Your task to perform on an android device: delete a single message in the gmail app Image 0: 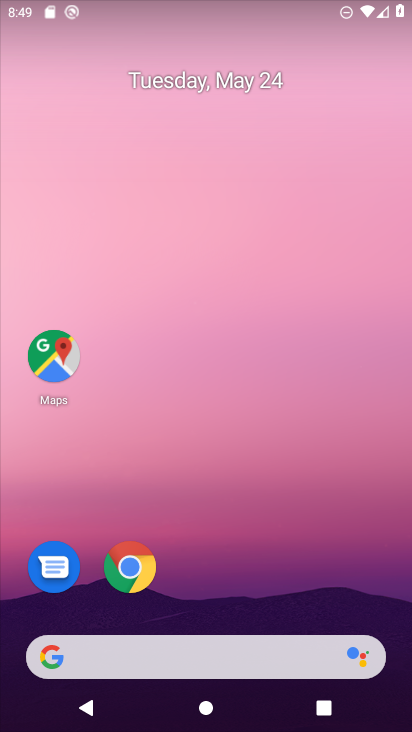
Step 0: press home button
Your task to perform on an android device: delete a single message in the gmail app Image 1: 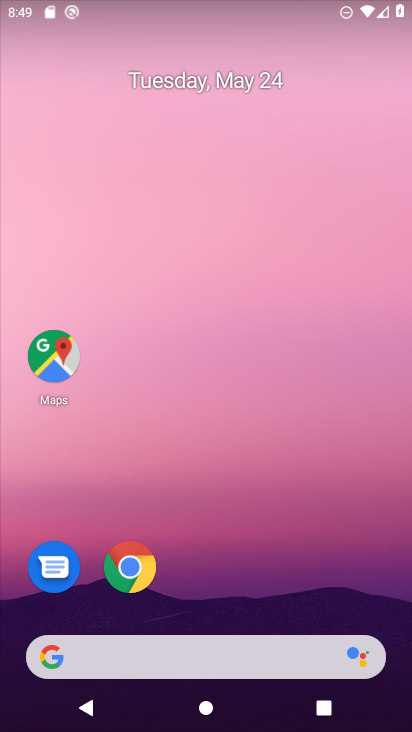
Step 1: drag from (136, 661) to (314, 84)
Your task to perform on an android device: delete a single message in the gmail app Image 2: 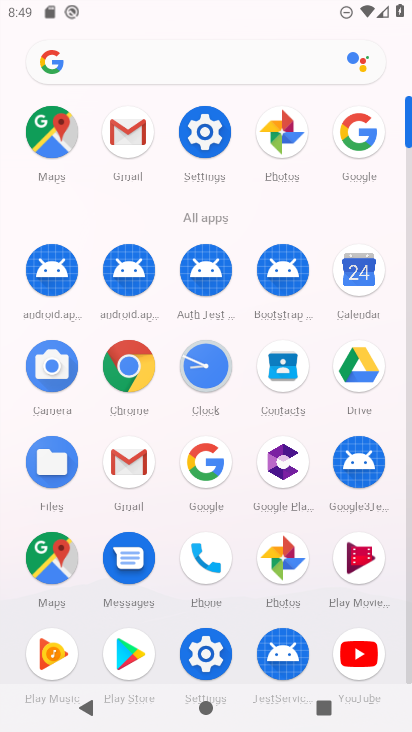
Step 2: click (121, 136)
Your task to perform on an android device: delete a single message in the gmail app Image 3: 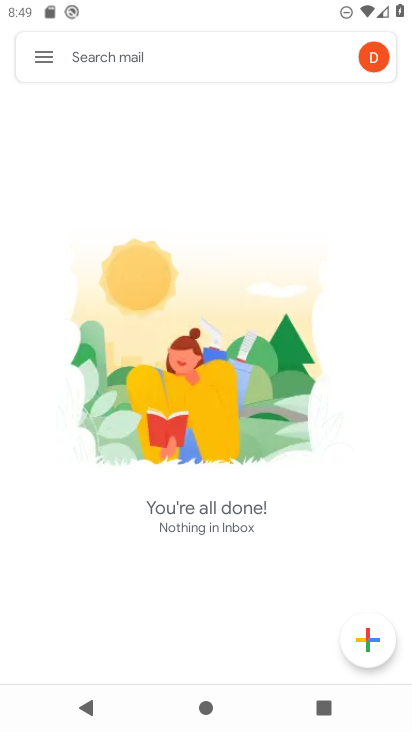
Step 3: task complete